Your task to perform on an android device: Go to Amazon Image 0: 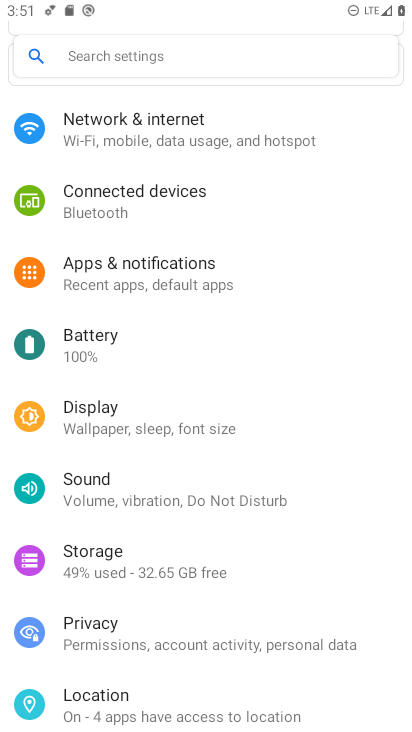
Step 0: press home button
Your task to perform on an android device: Go to Amazon Image 1: 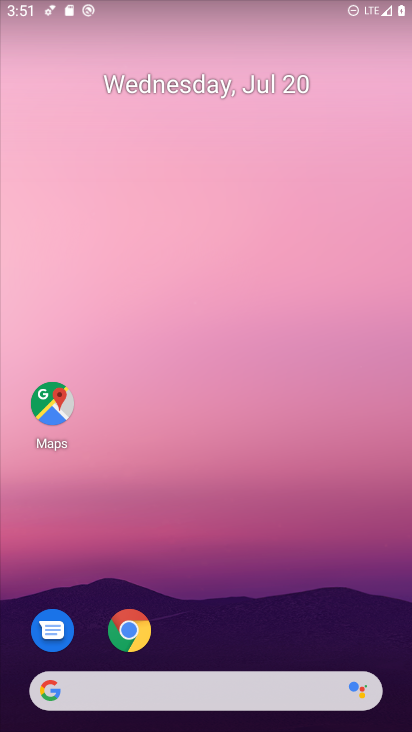
Step 1: drag from (223, 649) to (244, 64)
Your task to perform on an android device: Go to Amazon Image 2: 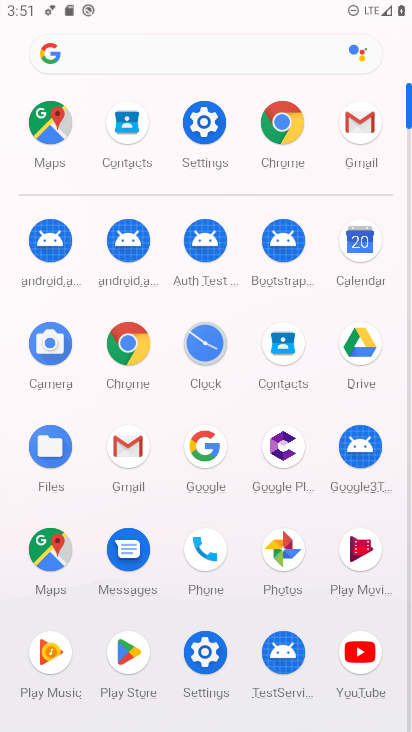
Step 2: click (279, 123)
Your task to perform on an android device: Go to Amazon Image 3: 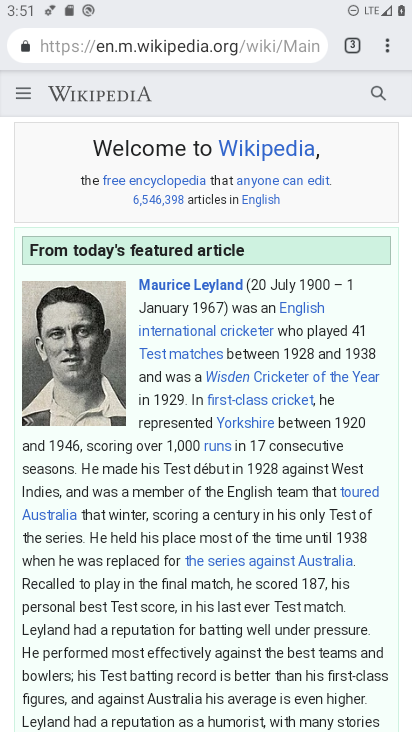
Step 3: click (352, 43)
Your task to perform on an android device: Go to Amazon Image 4: 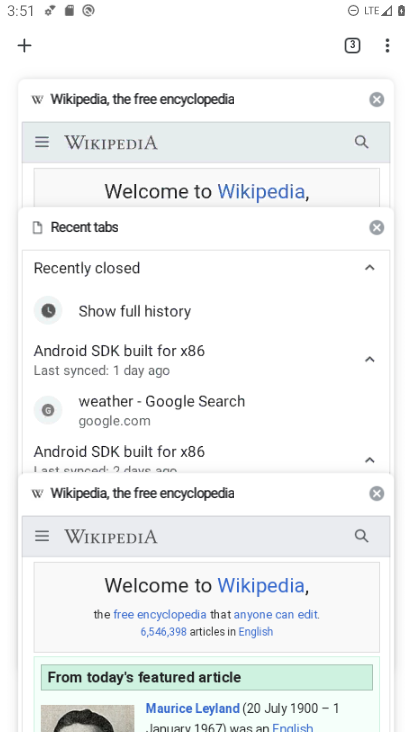
Step 4: click (373, 95)
Your task to perform on an android device: Go to Amazon Image 5: 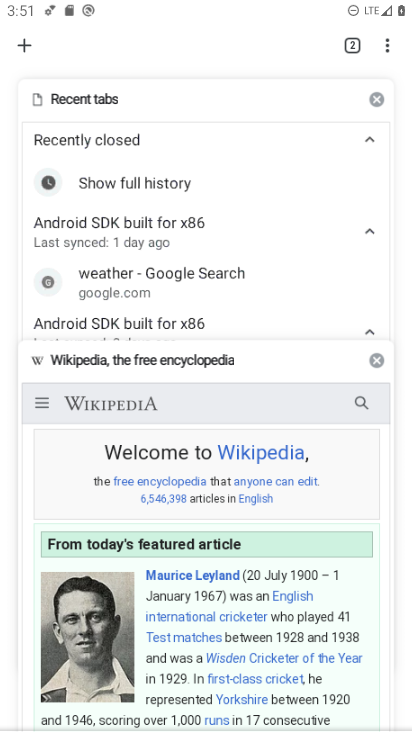
Step 5: click (373, 95)
Your task to perform on an android device: Go to Amazon Image 6: 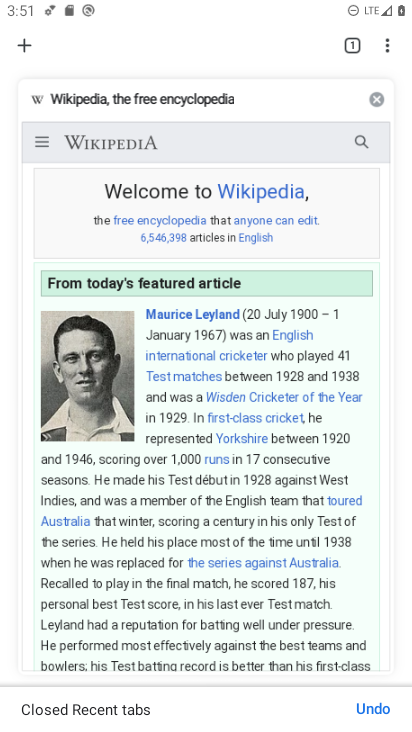
Step 6: click (26, 45)
Your task to perform on an android device: Go to Amazon Image 7: 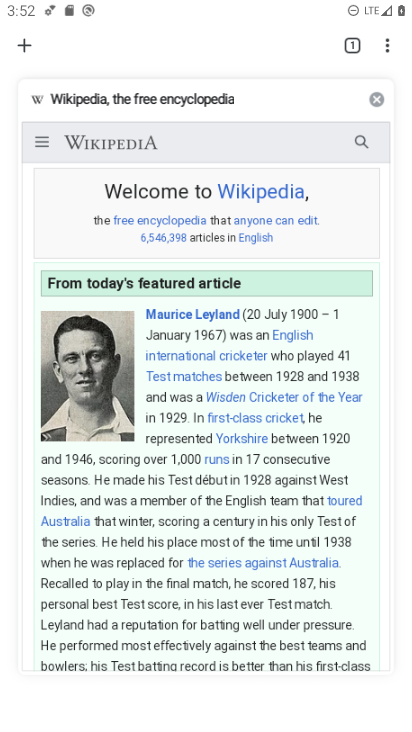
Step 7: click (20, 46)
Your task to perform on an android device: Go to Amazon Image 8: 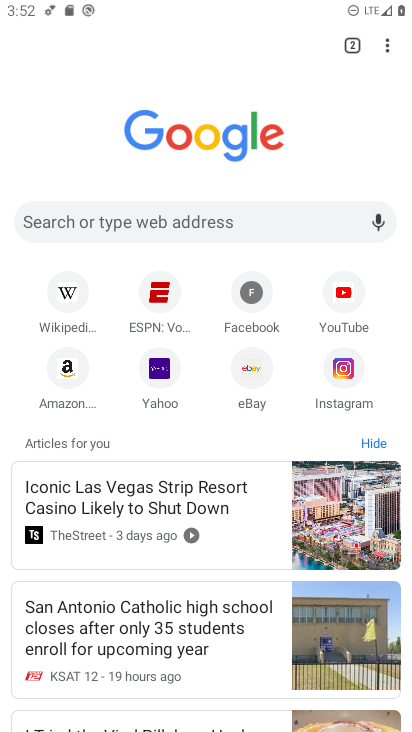
Step 8: click (63, 369)
Your task to perform on an android device: Go to Amazon Image 9: 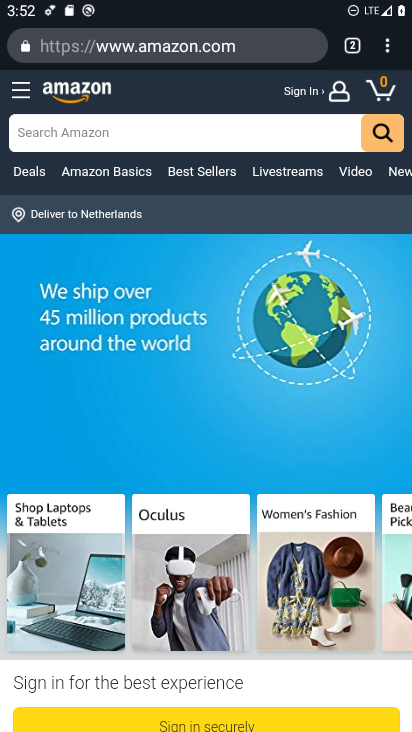
Step 9: task complete